Your task to perform on an android device: show emergency info Image 0: 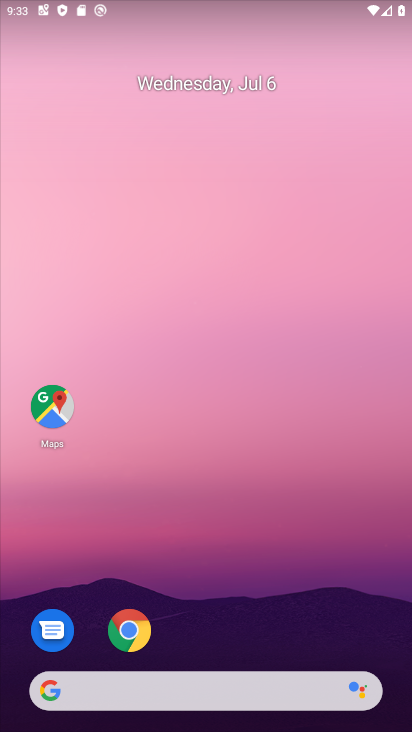
Step 0: drag from (336, 622) to (293, 109)
Your task to perform on an android device: show emergency info Image 1: 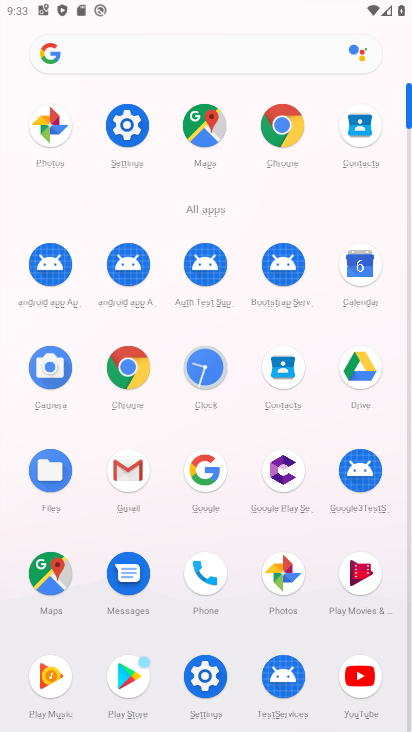
Step 1: click (204, 670)
Your task to perform on an android device: show emergency info Image 2: 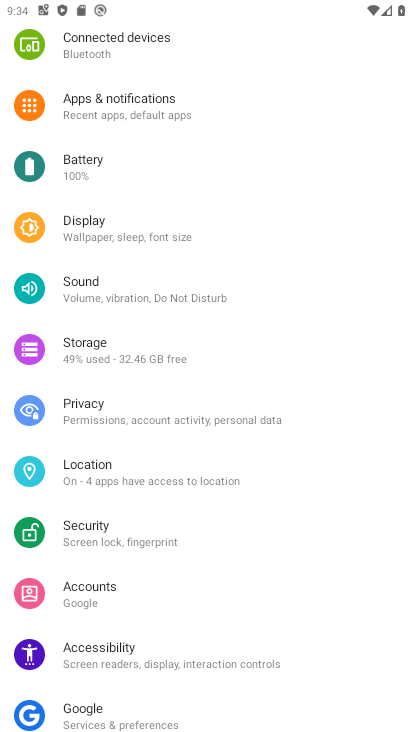
Step 2: drag from (282, 654) to (266, 343)
Your task to perform on an android device: show emergency info Image 3: 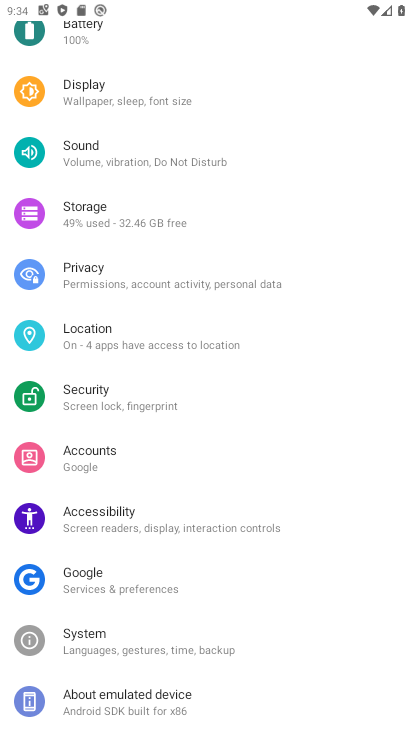
Step 3: click (95, 698)
Your task to perform on an android device: show emergency info Image 4: 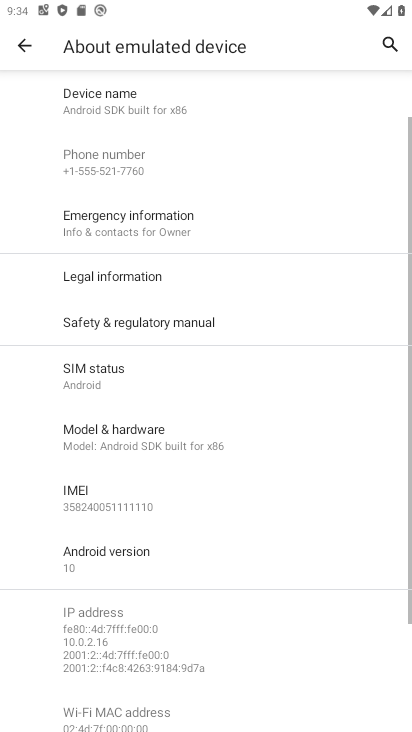
Step 4: click (147, 226)
Your task to perform on an android device: show emergency info Image 5: 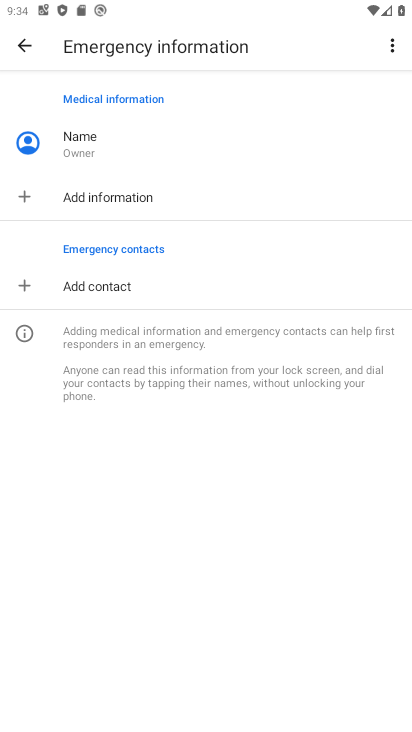
Step 5: task complete